Your task to perform on an android device: open a bookmark in the chrome app Image 0: 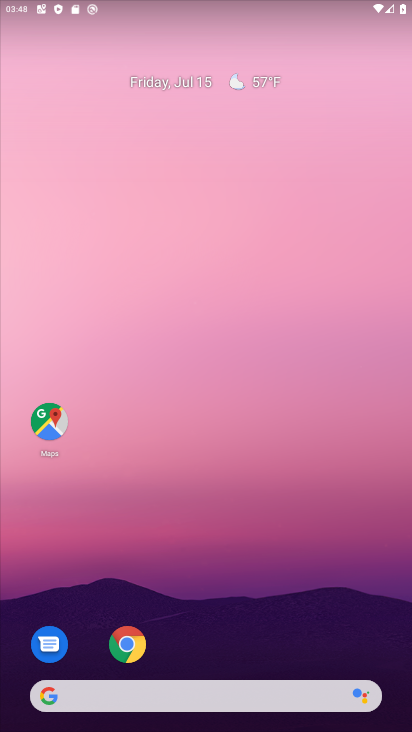
Step 0: drag from (201, 660) to (120, 22)
Your task to perform on an android device: open a bookmark in the chrome app Image 1: 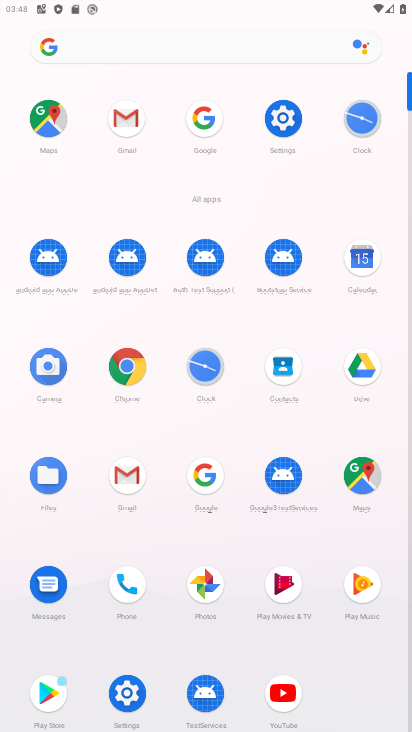
Step 1: click (115, 379)
Your task to perform on an android device: open a bookmark in the chrome app Image 2: 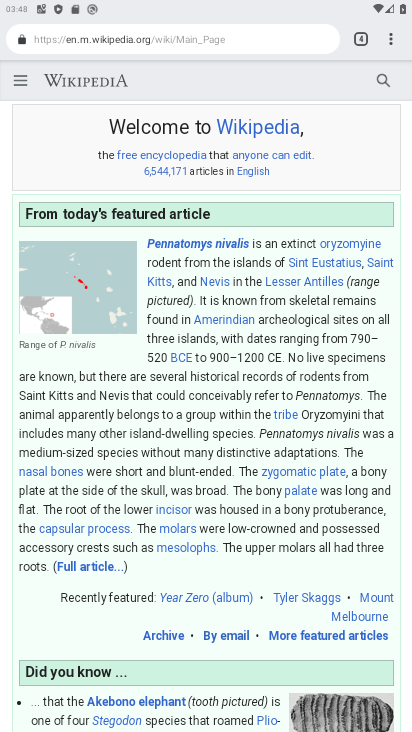
Step 2: click (391, 41)
Your task to perform on an android device: open a bookmark in the chrome app Image 3: 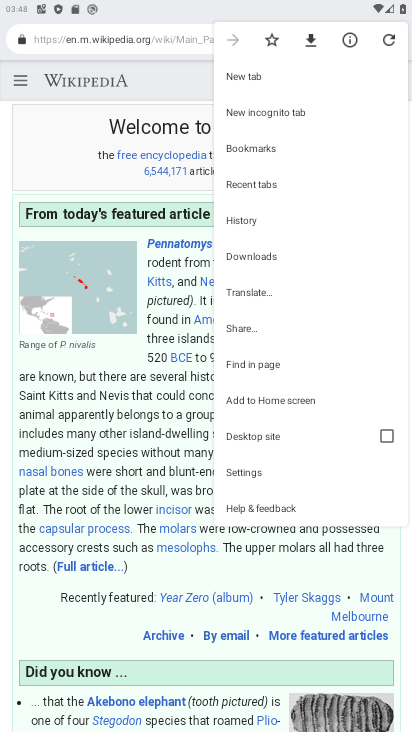
Step 3: click (326, 148)
Your task to perform on an android device: open a bookmark in the chrome app Image 4: 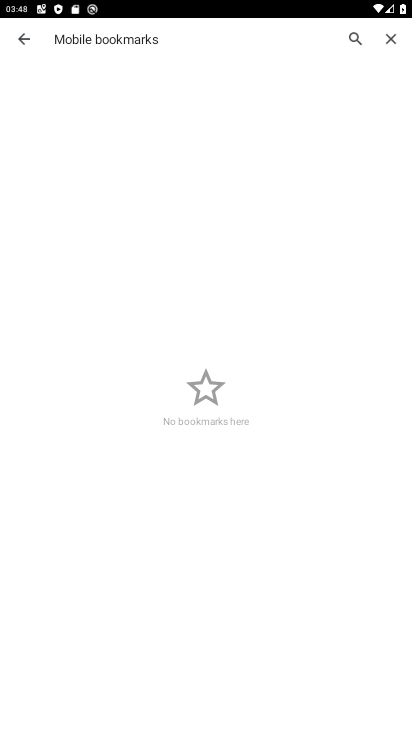
Step 4: task complete